Your task to perform on an android device: Go to notification settings Image 0: 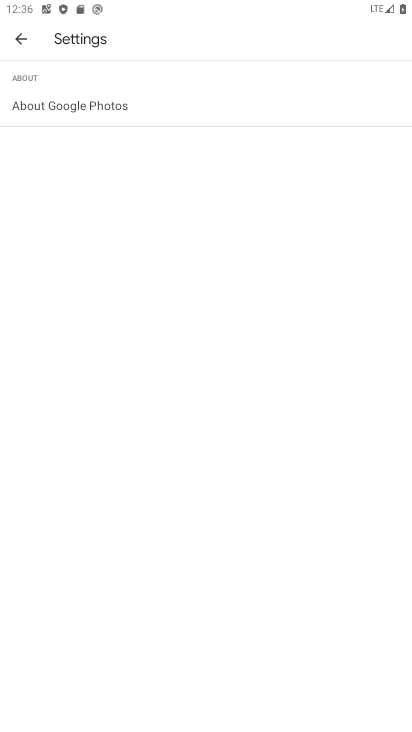
Step 0: press home button
Your task to perform on an android device: Go to notification settings Image 1: 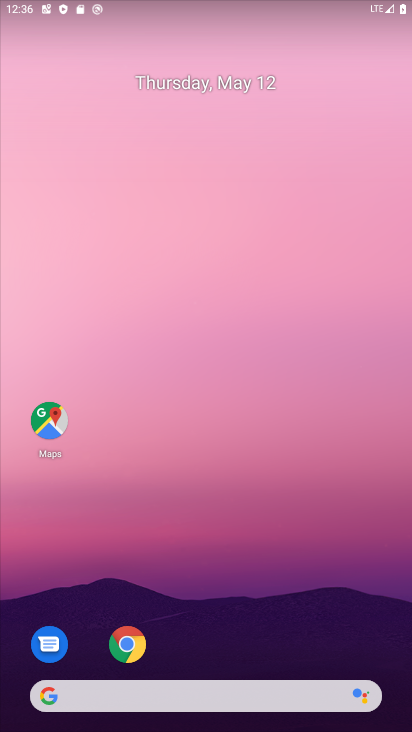
Step 1: drag from (208, 374) to (159, 60)
Your task to perform on an android device: Go to notification settings Image 2: 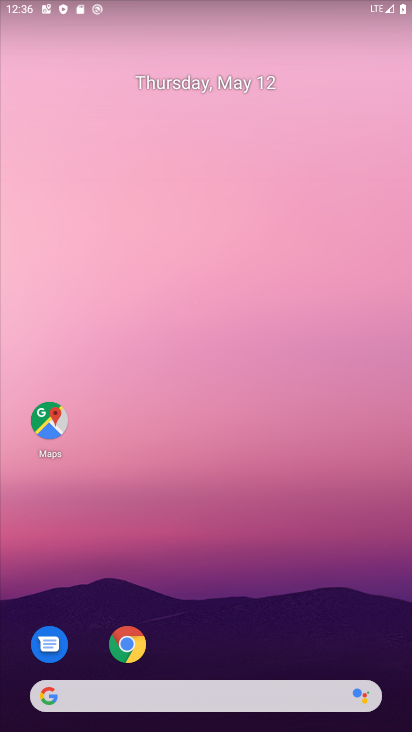
Step 2: drag from (177, 557) to (172, 111)
Your task to perform on an android device: Go to notification settings Image 3: 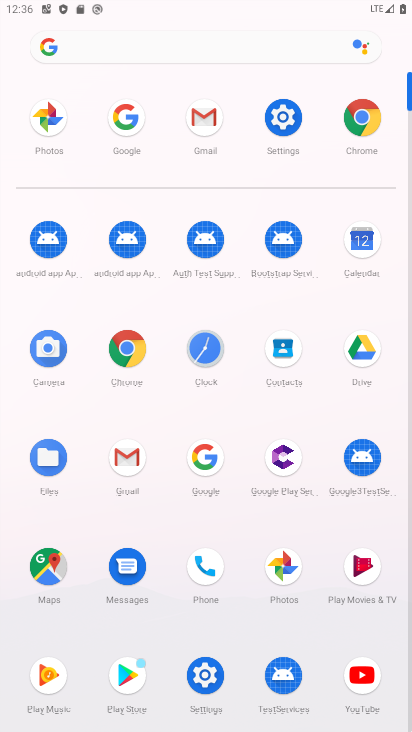
Step 3: click (289, 117)
Your task to perform on an android device: Go to notification settings Image 4: 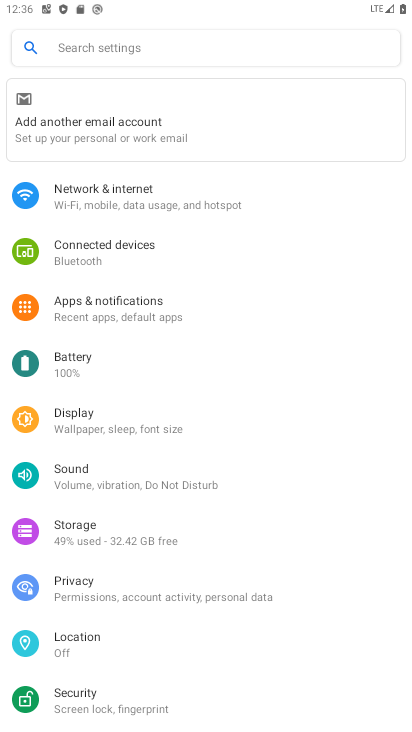
Step 4: click (166, 305)
Your task to perform on an android device: Go to notification settings Image 5: 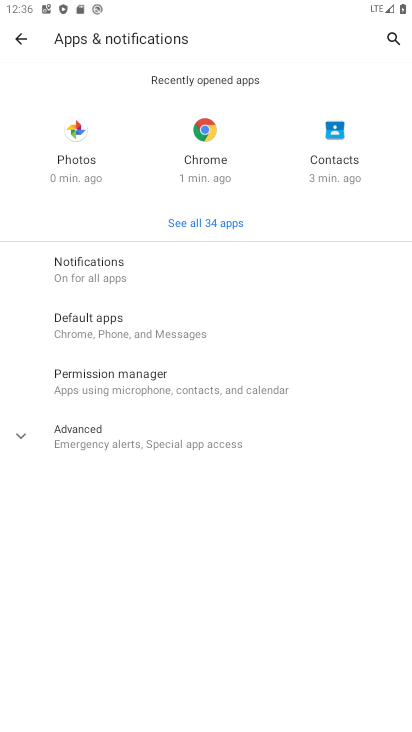
Step 5: task complete